Your task to perform on an android device: Do I have any events tomorrow? Image 0: 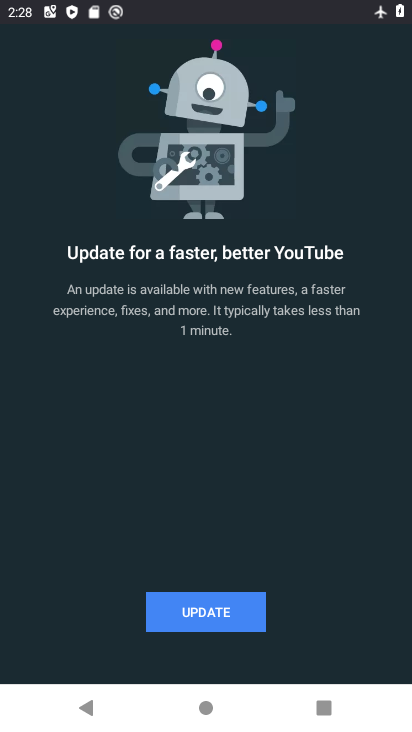
Step 0: press back button
Your task to perform on an android device: Do I have any events tomorrow? Image 1: 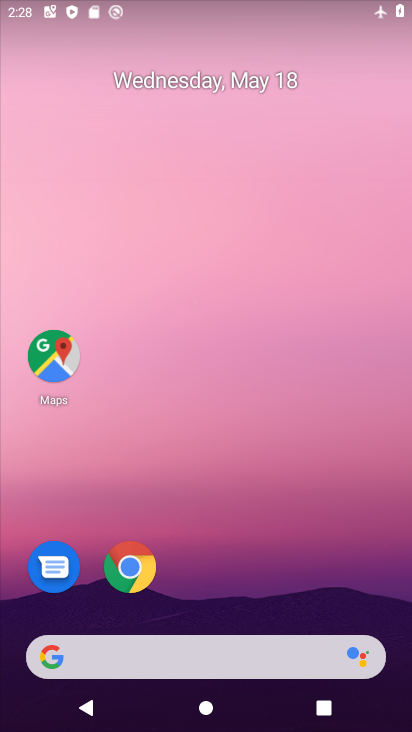
Step 1: drag from (238, 556) to (273, 204)
Your task to perform on an android device: Do I have any events tomorrow? Image 2: 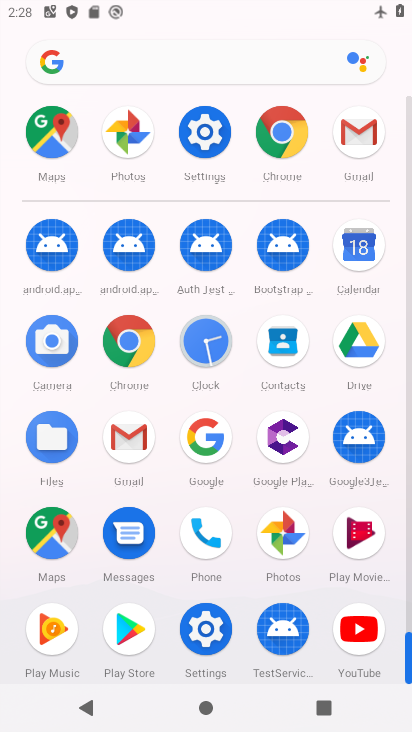
Step 2: click (347, 244)
Your task to perform on an android device: Do I have any events tomorrow? Image 3: 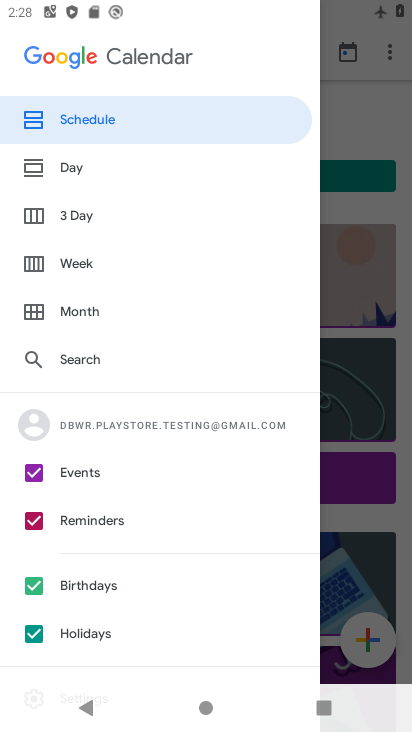
Step 3: click (89, 300)
Your task to perform on an android device: Do I have any events tomorrow? Image 4: 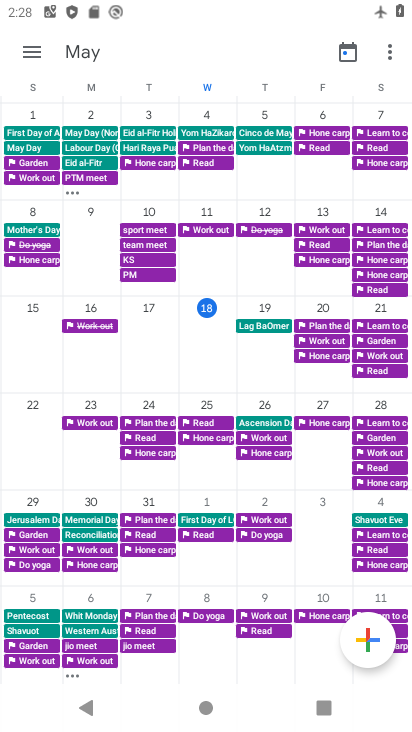
Step 4: click (262, 316)
Your task to perform on an android device: Do I have any events tomorrow? Image 5: 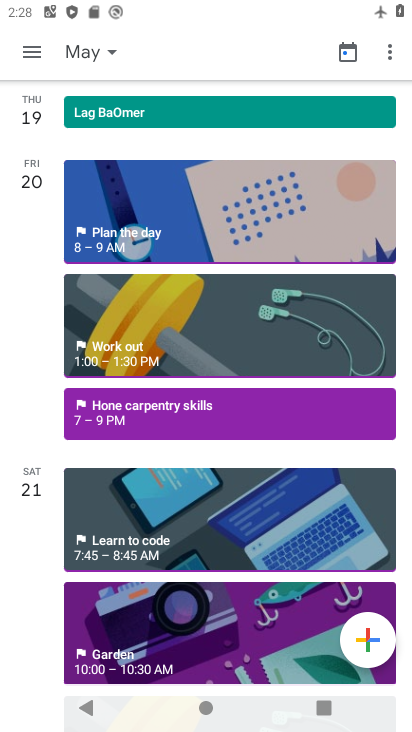
Step 5: task complete